Your task to perform on an android device: change the clock display to analog Image 0: 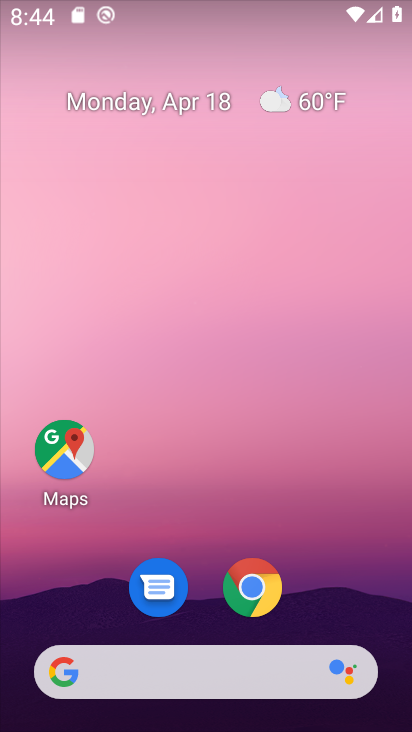
Step 0: drag from (303, 368) to (100, 0)
Your task to perform on an android device: change the clock display to analog Image 1: 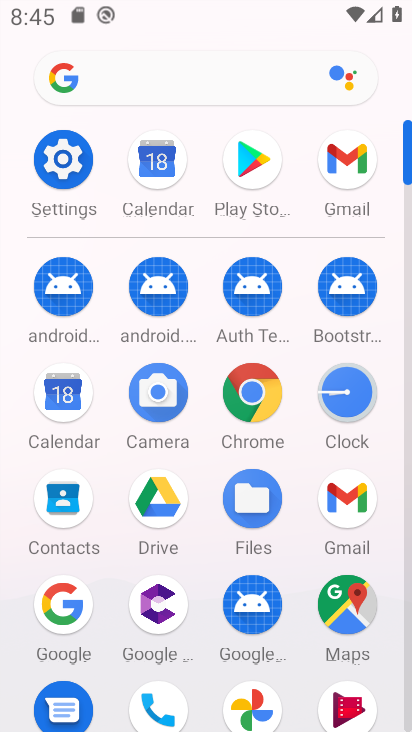
Step 1: drag from (156, 212) to (161, 114)
Your task to perform on an android device: change the clock display to analog Image 2: 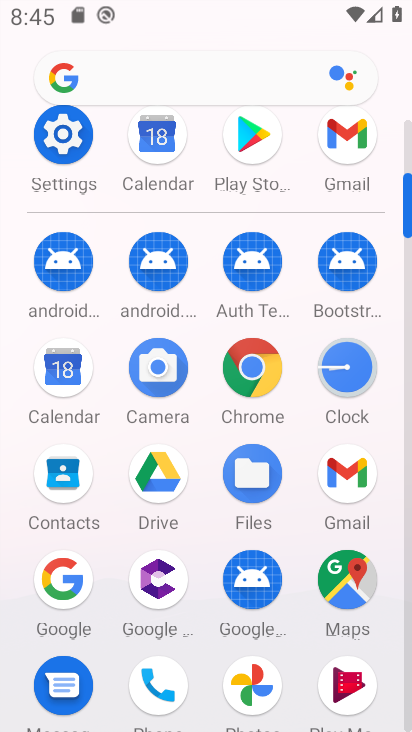
Step 2: click (85, 155)
Your task to perform on an android device: change the clock display to analog Image 3: 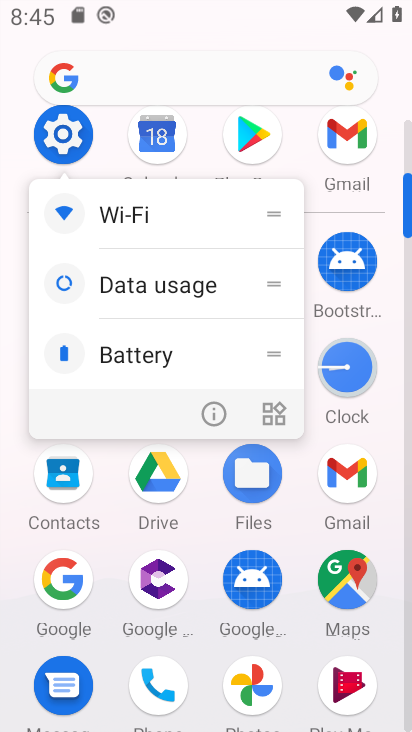
Step 3: click (358, 390)
Your task to perform on an android device: change the clock display to analog Image 4: 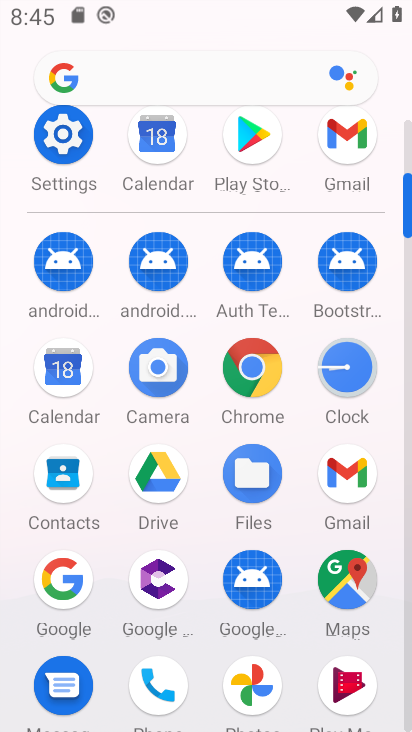
Step 4: click (358, 390)
Your task to perform on an android device: change the clock display to analog Image 5: 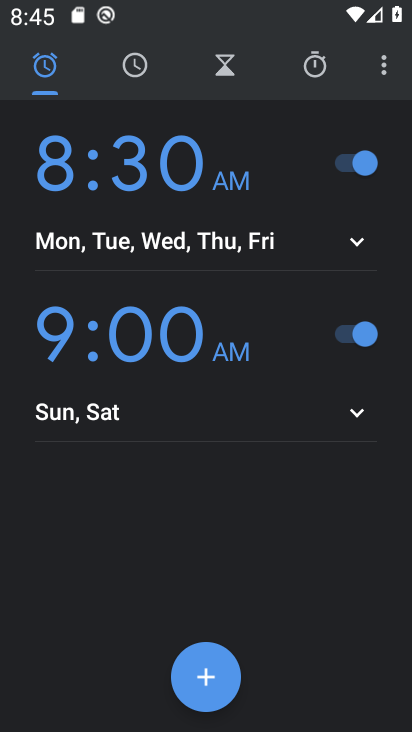
Step 5: click (384, 77)
Your task to perform on an android device: change the clock display to analog Image 6: 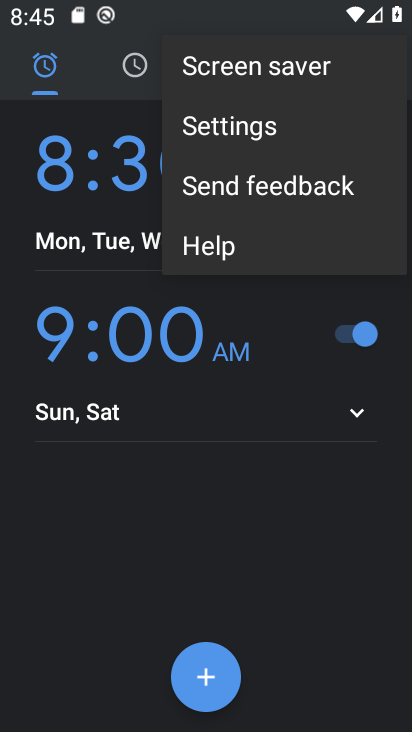
Step 6: click (245, 126)
Your task to perform on an android device: change the clock display to analog Image 7: 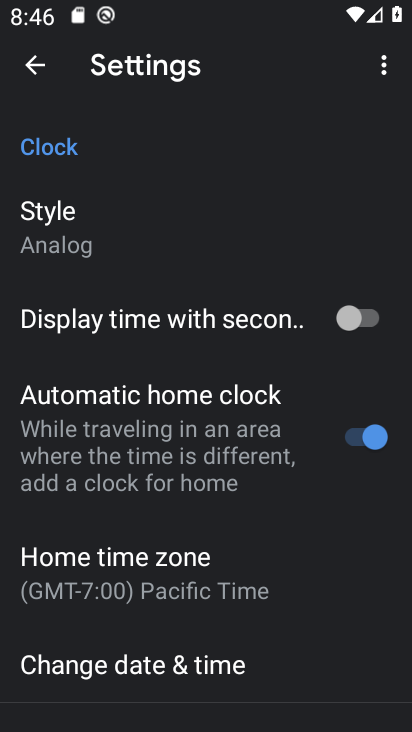
Step 7: task complete